Your task to perform on an android device: Open display settings Image 0: 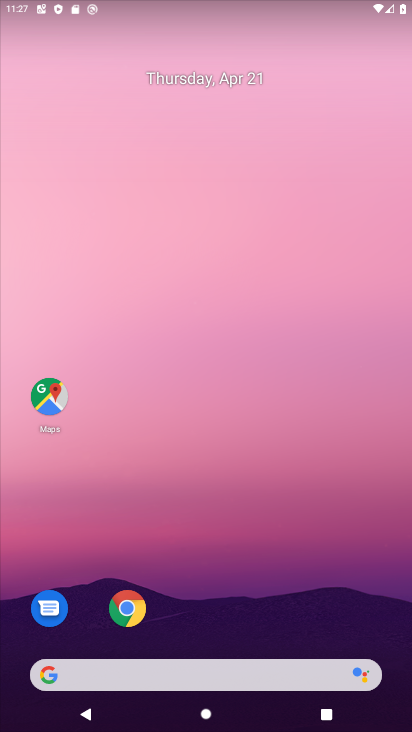
Step 0: drag from (174, 523) to (117, 120)
Your task to perform on an android device: Open display settings Image 1: 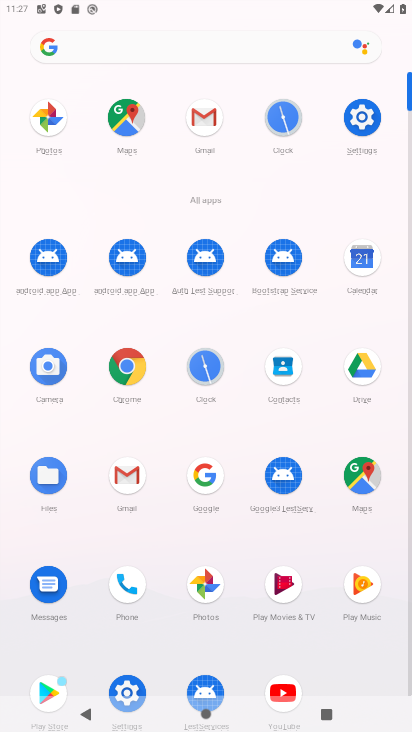
Step 1: click (360, 156)
Your task to perform on an android device: Open display settings Image 2: 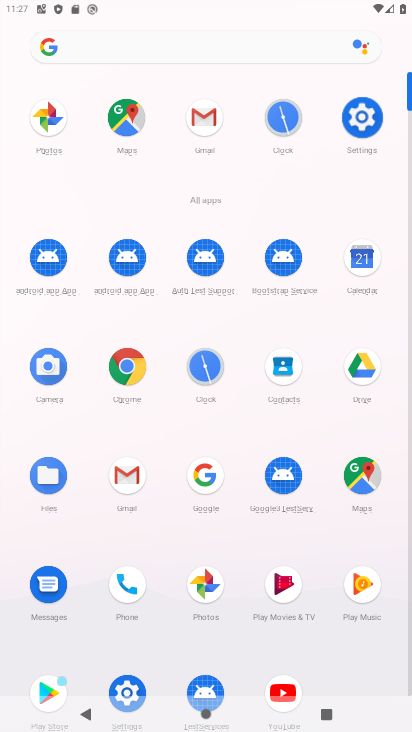
Step 2: click (366, 120)
Your task to perform on an android device: Open display settings Image 3: 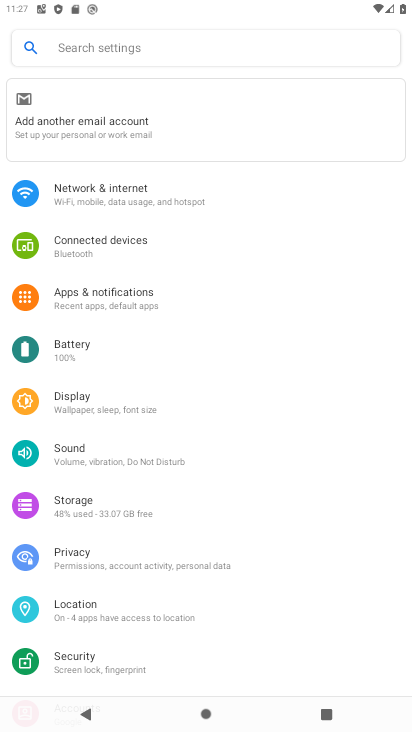
Step 3: click (89, 400)
Your task to perform on an android device: Open display settings Image 4: 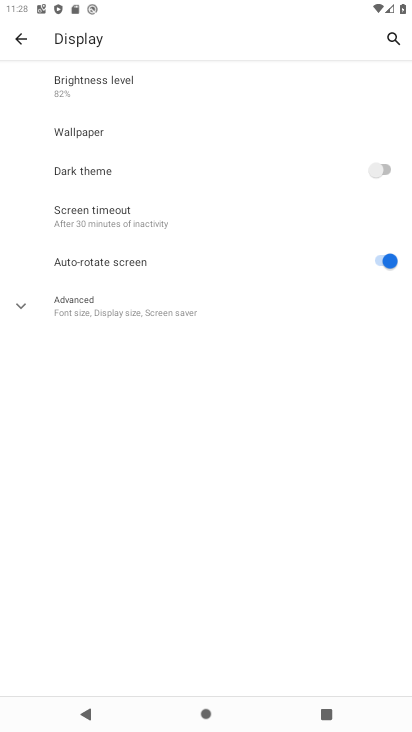
Step 4: click (22, 43)
Your task to perform on an android device: Open display settings Image 5: 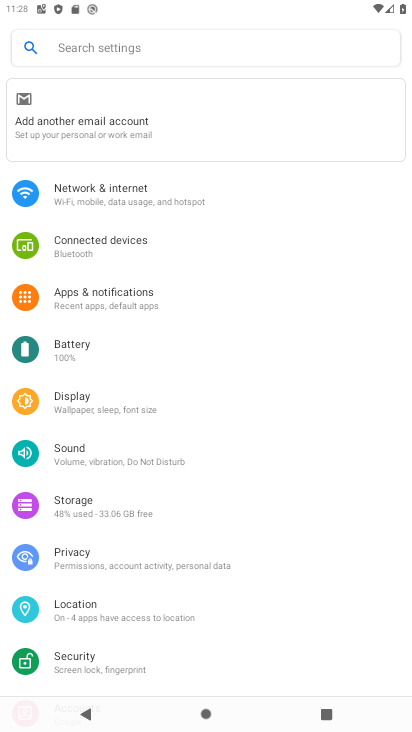
Step 5: click (83, 394)
Your task to perform on an android device: Open display settings Image 6: 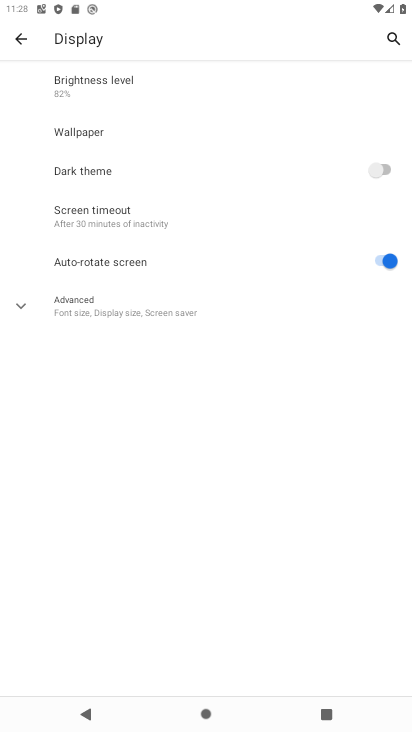
Step 6: task complete